Your task to perform on an android device: change alarm snooze length Image 0: 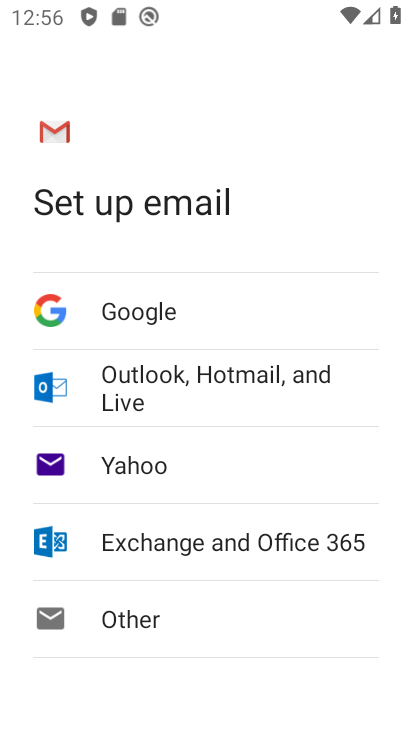
Step 0: press home button
Your task to perform on an android device: change alarm snooze length Image 1: 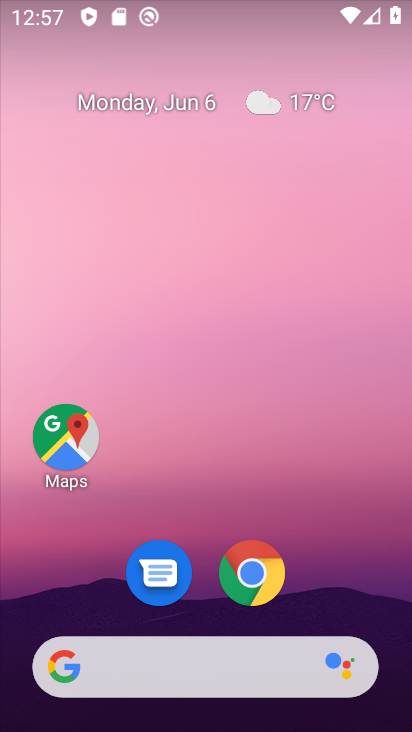
Step 1: drag from (352, 590) to (353, 221)
Your task to perform on an android device: change alarm snooze length Image 2: 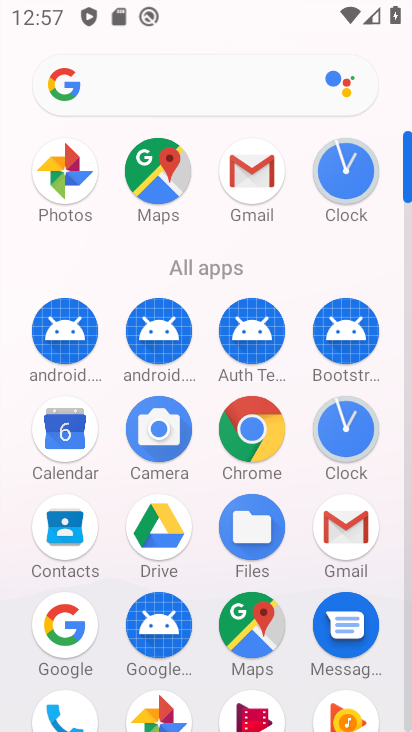
Step 2: click (353, 424)
Your task to perform on an android device: change alarm snooze length Image 3: 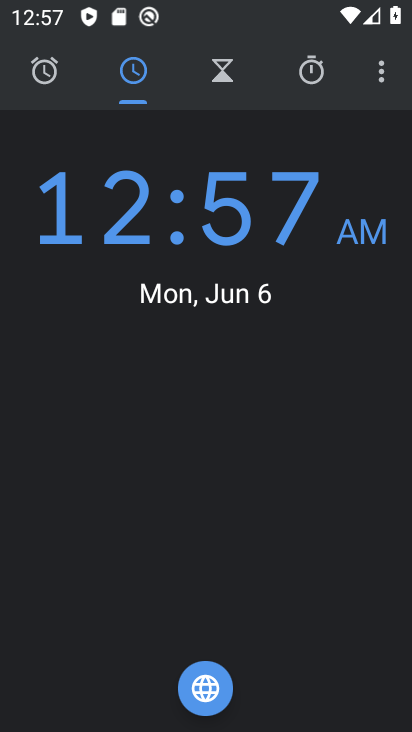
Step 3: click (385, 80)
Your task to perform on an android device: change alarm snooze length Image 4: 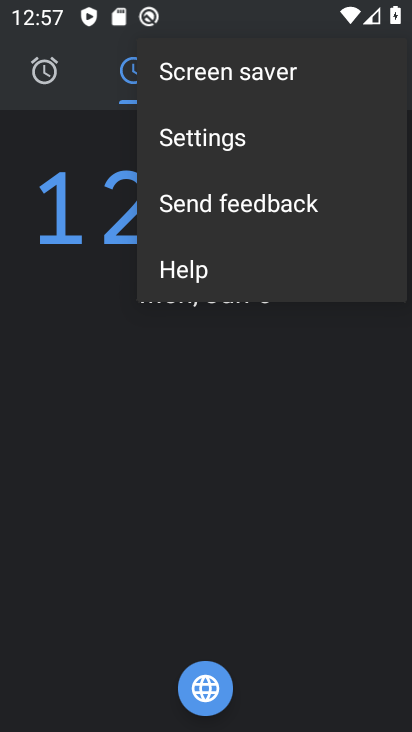
Step 4: click (253, 134)
Your task to perform on an android device: change alarm snooze length Image 5: 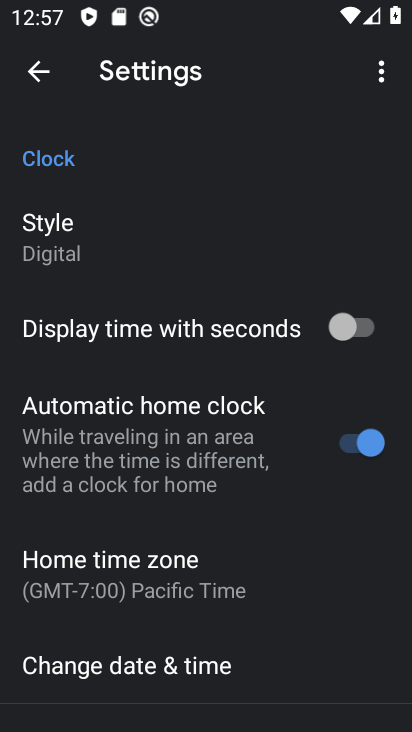
Step 5: drag from (270, 527) to (278, 402)
Your task to perform on an android device: change alarm snooze length Image 6: 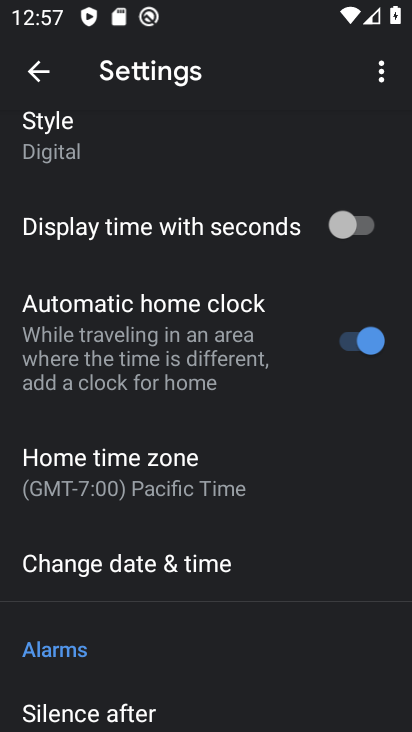
Step 6: drag from (290, 492) to (302, 416)
Your task to perform on an android device: change alarm snooze length Image 7: 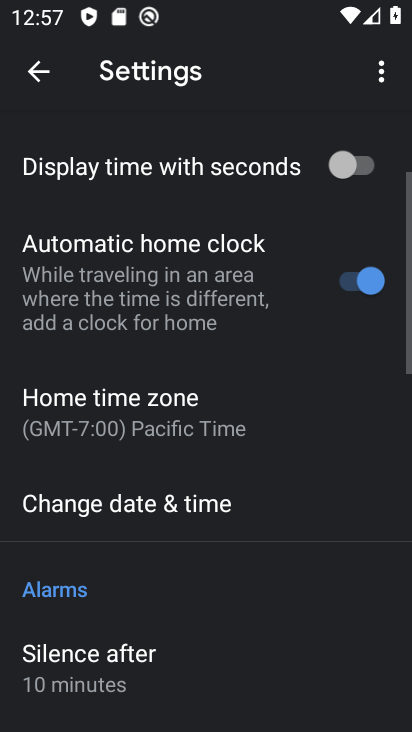
Step 7: drag from (292, 515) to (292, 427)
Your task to perform on an android device: change alarm snooze length Image 8: 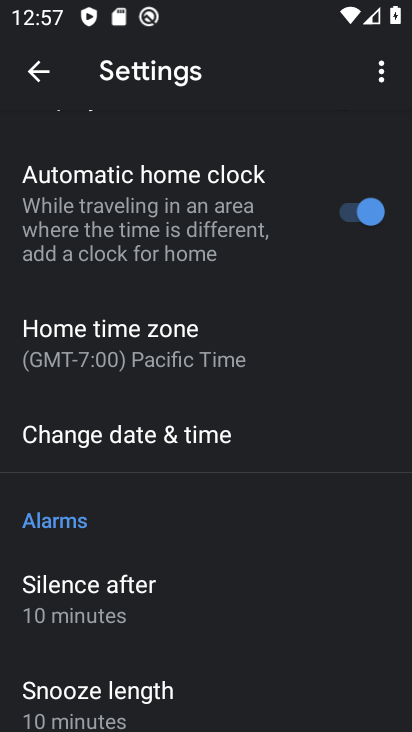
Step 8: drag from (262, 521) to (274, 428)
Your task to perform on an android device: change alarm snooze length Image 9: 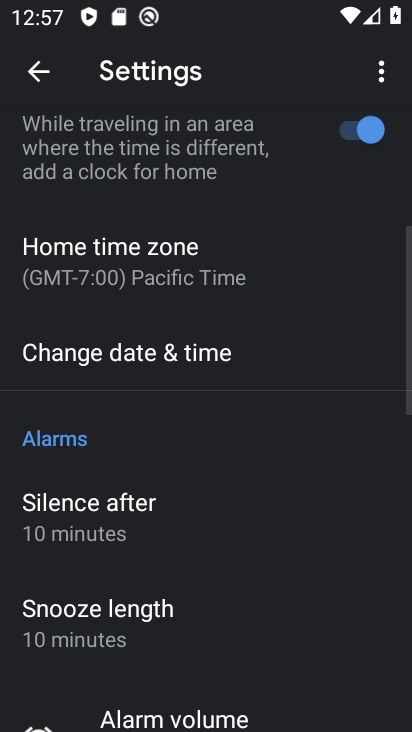
Step 9: drag from (264, 525) to (276, 418)
Your task to perform on an android device: change alarm snooze length Image 10: 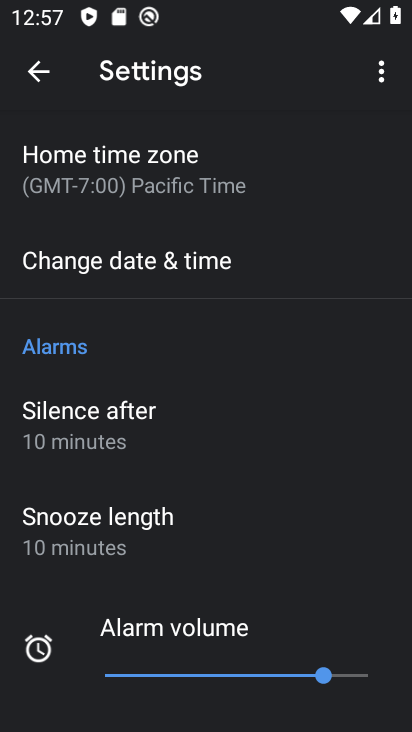
Step 10: drag from (286, 502) to (288, 423)
Your task to perform on an android device: change alarm snooze length Image 11: 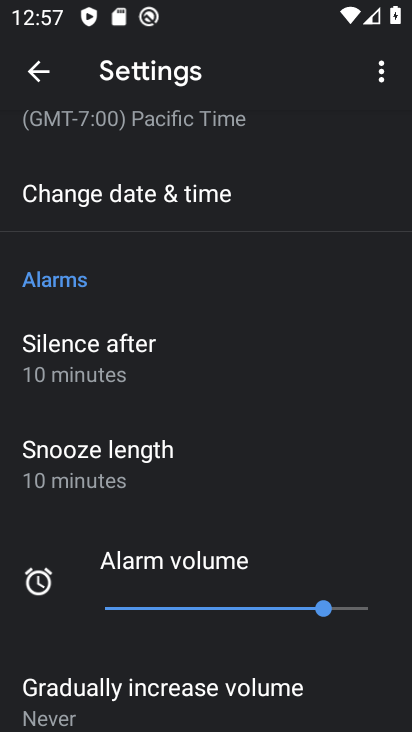
Step 11: click (136, 472)
Your task to perform on an android device: change alarm snooze length Image 12: 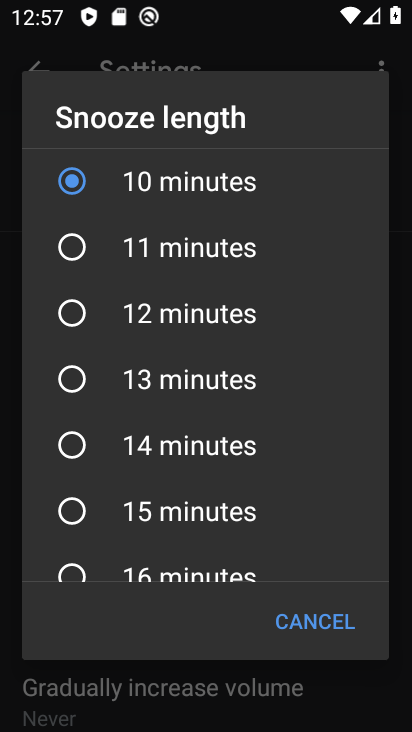
Step 12: click (175, 442)
Your task to perform on an android device: change alarm snooze length Image 13: 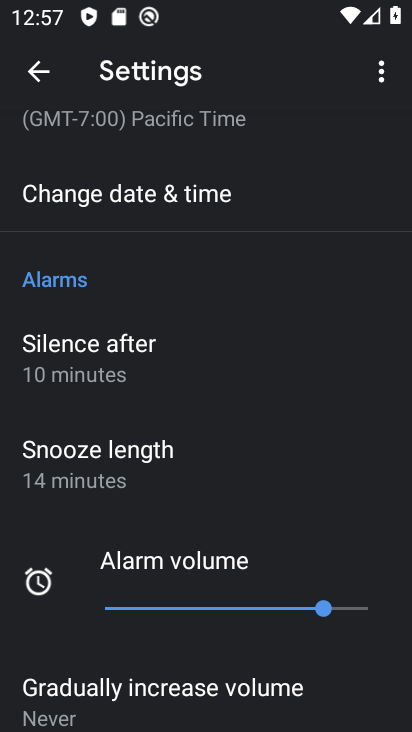
Step 13: task complete